Your task to perform on an android device: turn on showing notifications on the lock screen Image 0: 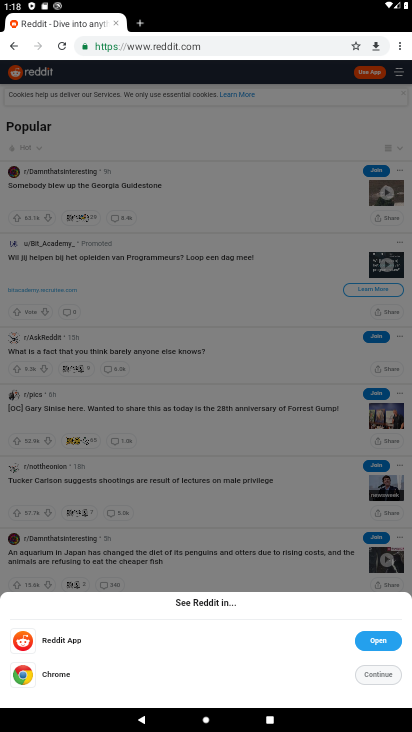
Step 0: press home button
Your task to perform on an android device: turn on showing notifications on the lock screen Image 1: 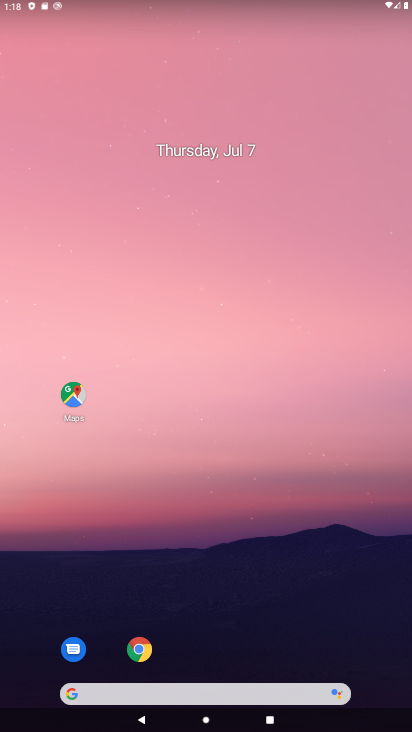
Step 1: drag from (396, 653) to (350, 39)
Your task to perform on an android device: turn on showing notifications on the lock screen Image 2: 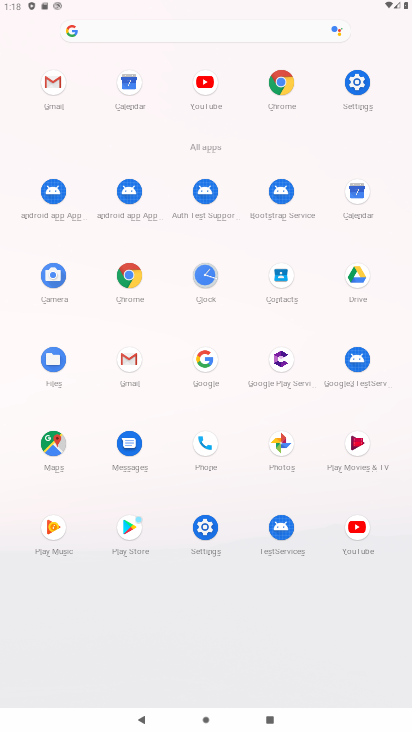
Step 2: click (205, 528)
Your task to perform on an android device: turn on showing notifications on the lock screen Image 3: 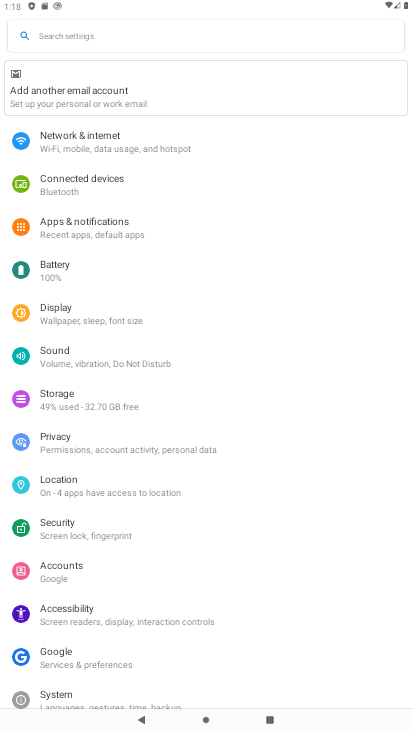
Step 3: click (73, 228)
Your task to perform on an android device: turn on showing notifications on the lock screen Image 4: 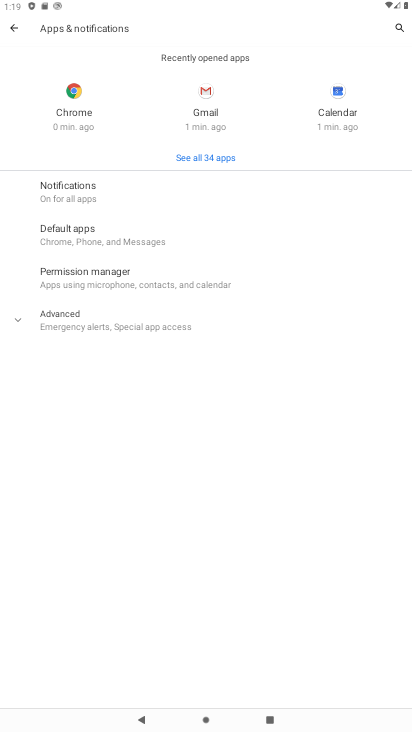
Step 4: click (12, 319)
Your task to perform on an android device: turn on showing notifications on the lock screen Image 5: 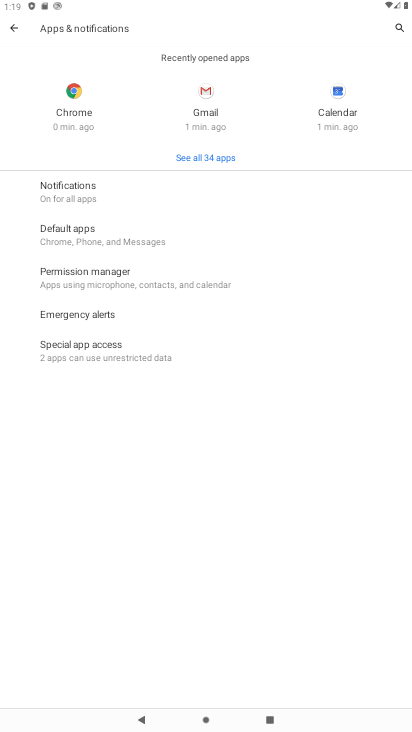
Step 5: click (66, 189)
Your task to perform on an android device: turn on showing notifications on the lock screen Image 6: 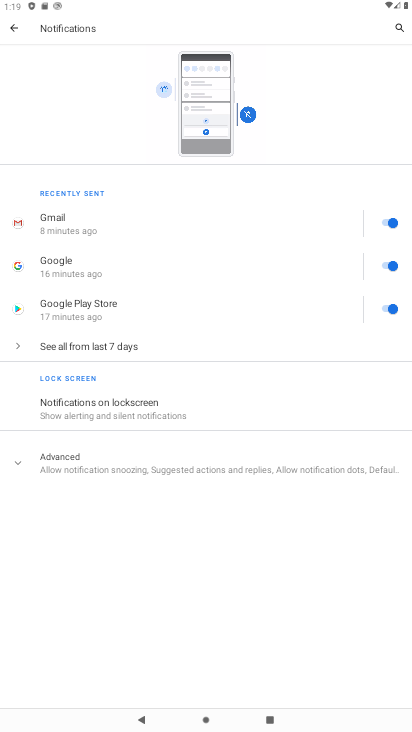
Step 6: click (105, 400)
Your task to perform on an android device: turn on showing notifications on the lock screen Image 7: 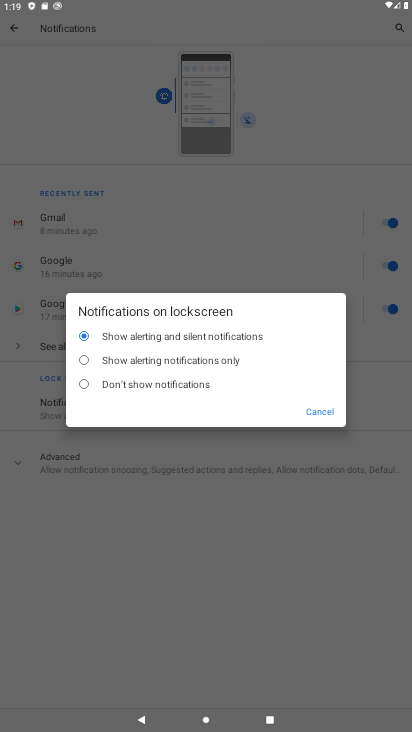
Step 7: click (83, 359)
Your task to perform on an android device: turn on showing notifications on the lock screen Image 8: 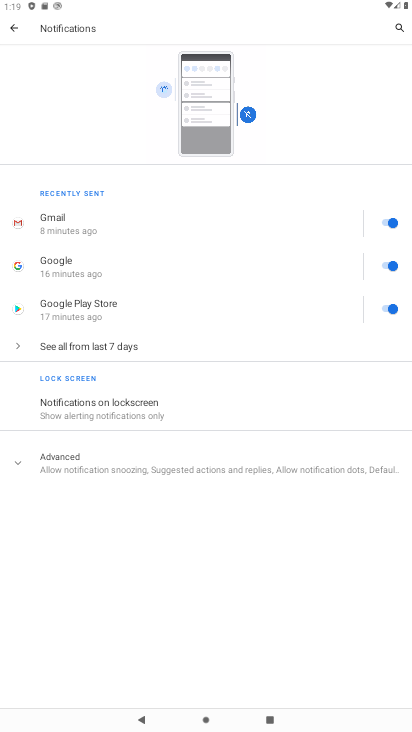
Step 8: task complete